Your task to perform on an android device: see sites visited before in the chrome app Image 0: 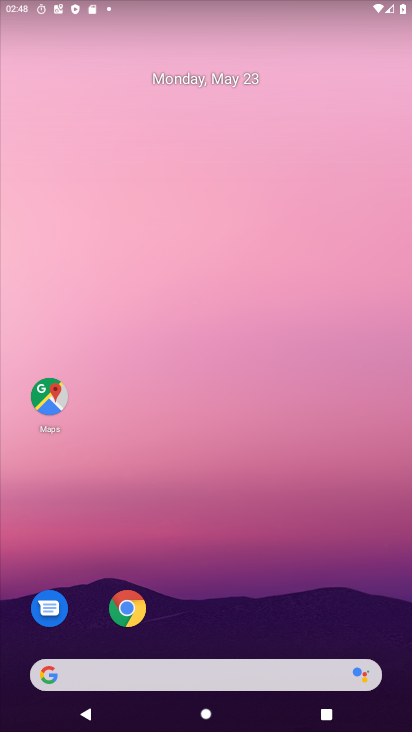
Step 0: click (130, 614)
Your task to perform on an android device: see sites visited before in the chrome app Image 1: 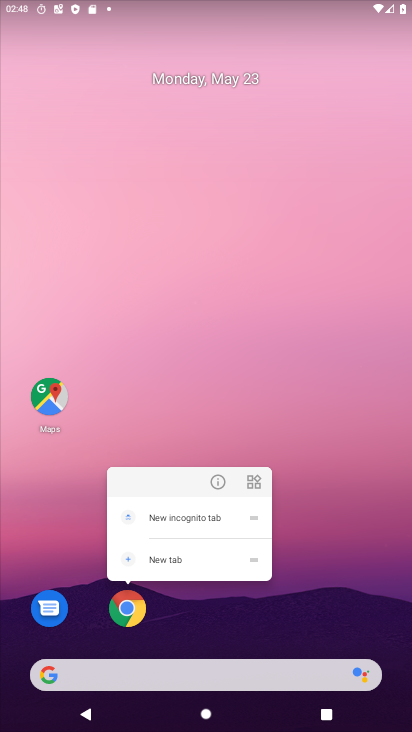
Step 1: click (133, 618)
Your task to perform on an android device: see sites visited before in the chrome app Image 2: 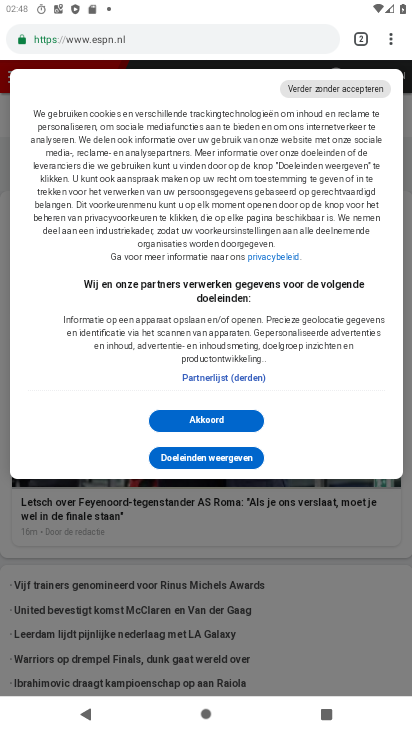
Step 2: click (396, 34)
Your task to perform on an android device: see sites visited before in the chrome app Image 3: 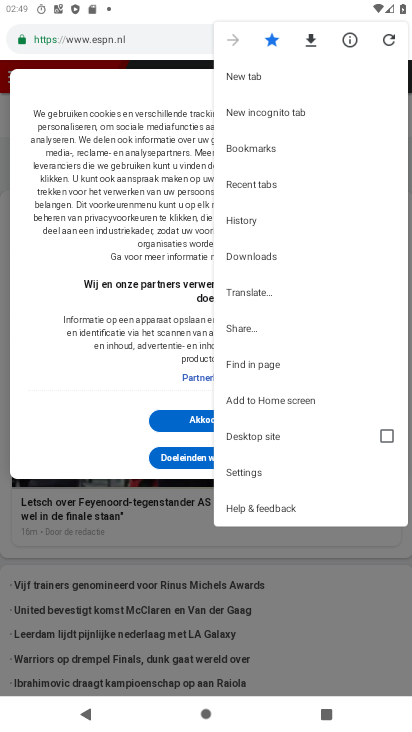
Step 3: click (257, 223)
Your task to perform on an android device: see sites visited before in the chrome app Image 4: 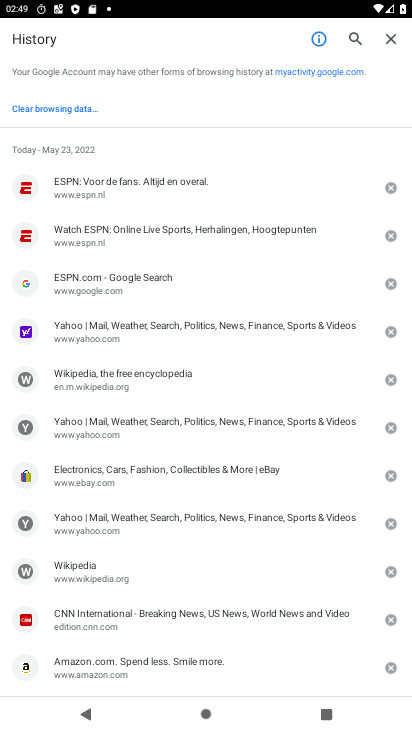
Step 4: task complete